Your task to perform on an android device: Open ESPN.com Image 0: 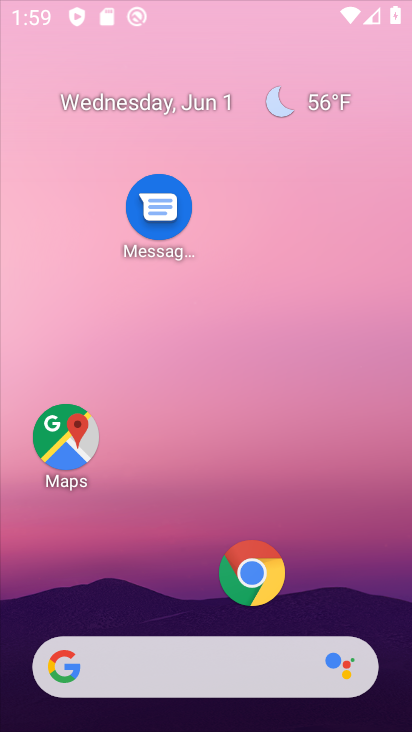
Step 0: click (272, 19)
Your task to perform on an android device: Open ESPN.com Image 1: 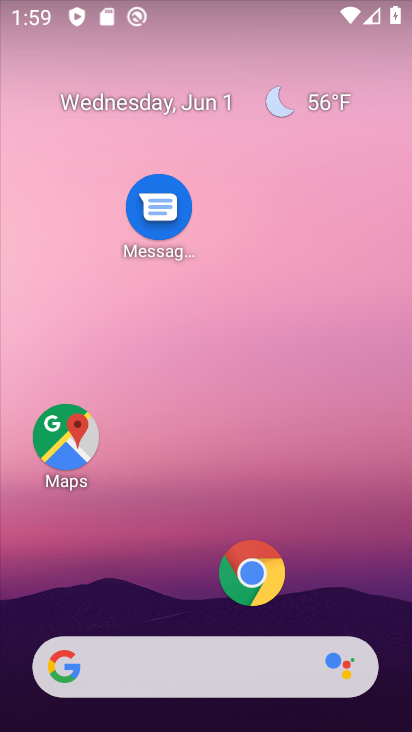
Step 1: drag from (176, 609) to (246, 90)
Your task to perform on an android device: Open ESPN.com Image 2: 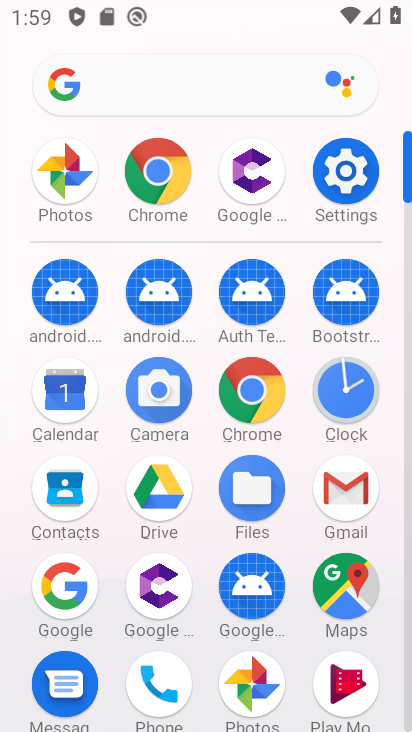
Step 2: click (151, 79)
Your task to perform on an android device: Open ESPN.com Image 3: 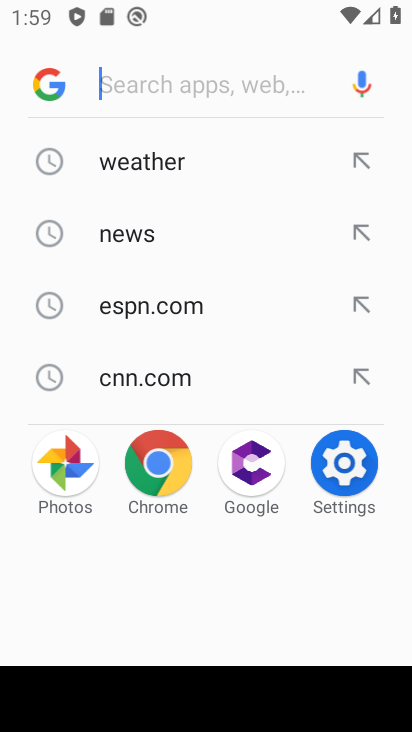
Step 3: click (136, 308)
Your task to perform on an android device: Open ESPN.com Image 4: 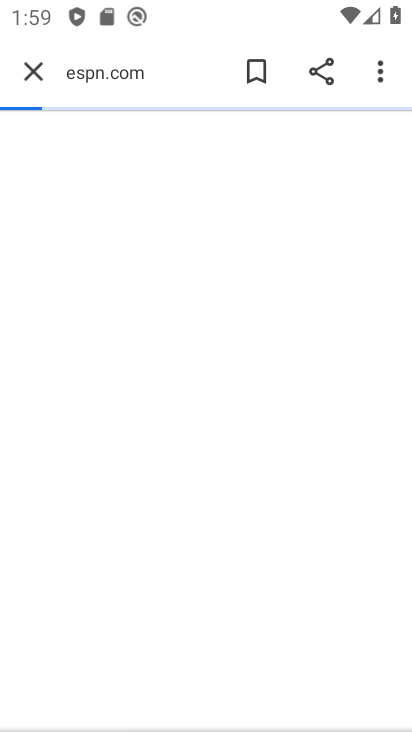
Step 4: task complete